Your task to perform on an android device: Show me popular games on the Play Store Image 0: 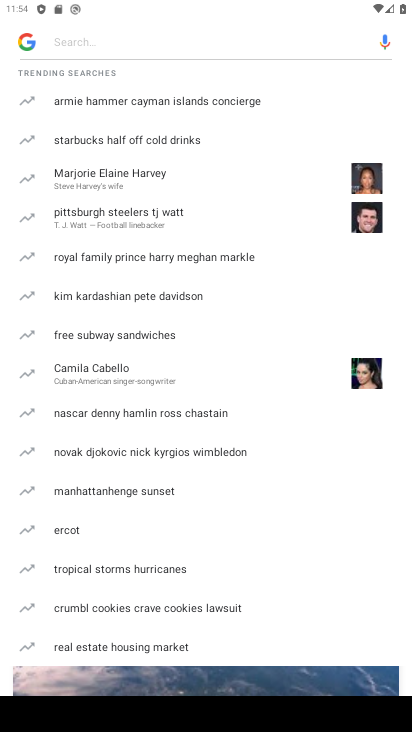
Step 0: press home button
Your task to perform on an android device: Show me popular games on the Play Store Image 1: 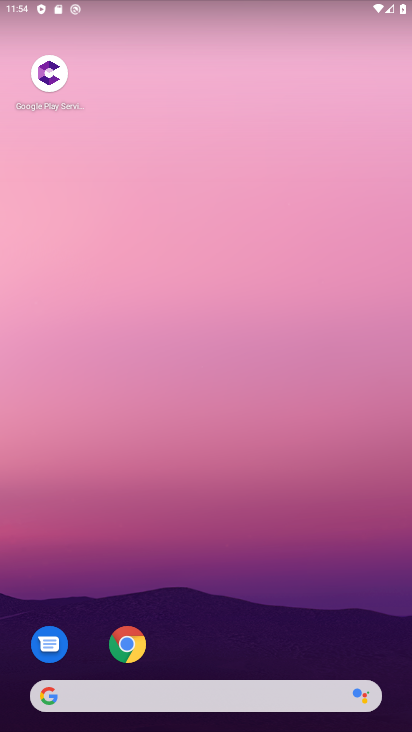
Step 1: drag from (14, 680) to (160, 182)
Your task to perform on an android device: Show me popular games on the Play Store Image 2: 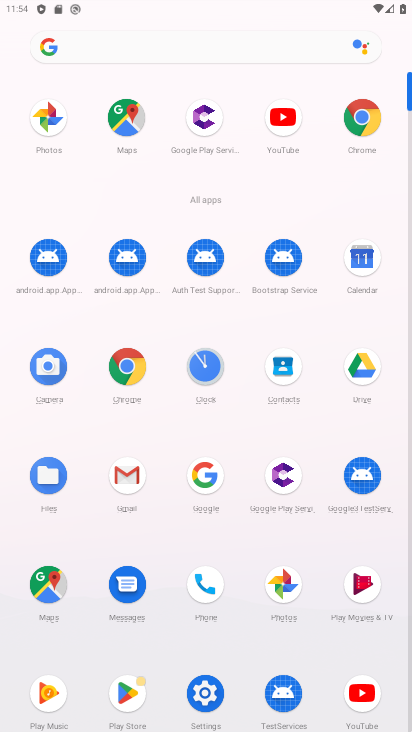
Step 2: click (122, 696)
Your task to perform on an android device: Show me popular games on the Play Store Image 3: 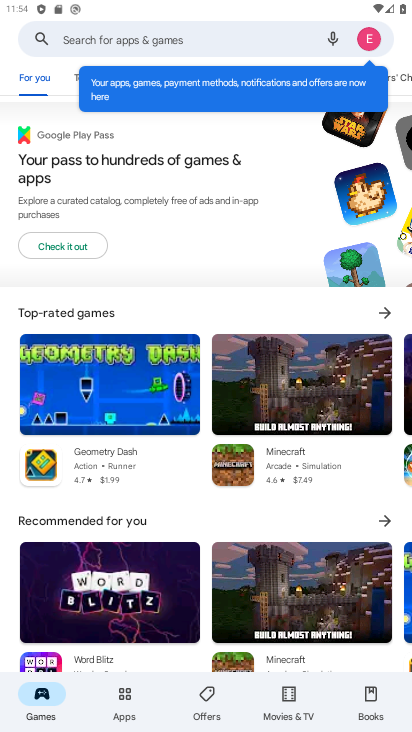
Step 3: click (80, 33)
Your task to perform on an android device: Show me popular games on the Play Store Image 4: 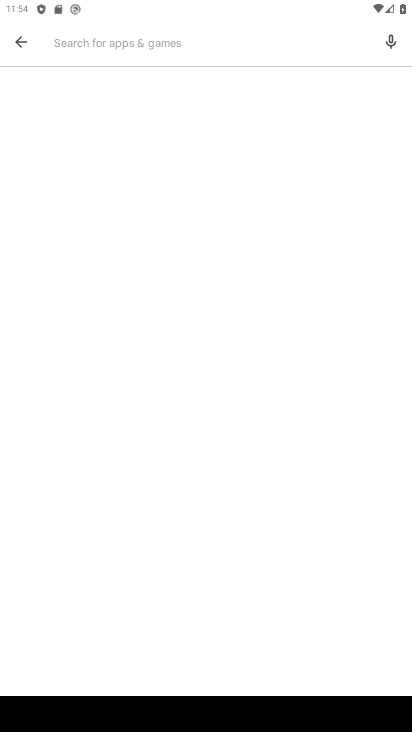
Step 4: type " popular games"
Your task to perform on an android device: Show me popular games on the Play Store Image 5: 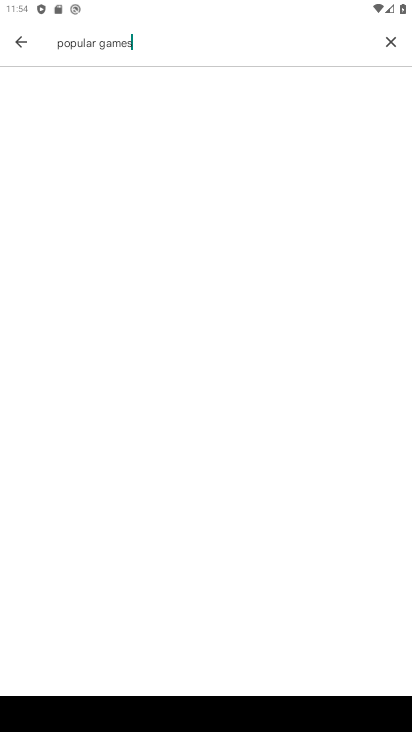
Step 5: type ""
Your task to perform on an android device: Show me popular games on the Play Store Image 6: 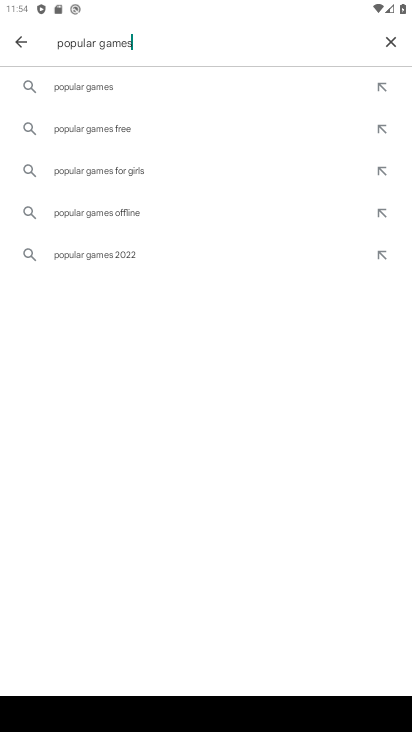
Step 6: click (94, 93)
Your task to perform on an android device: Show me popular games on the Play Store Image 7: 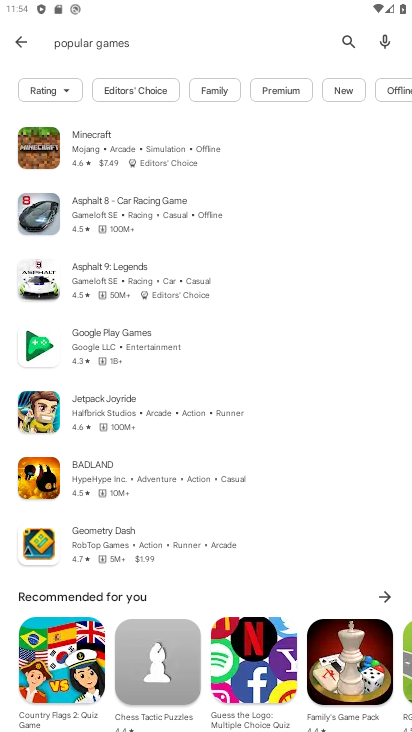
Step 7: task complete